Your task to perform on an android device: Search for sushi restaurants on Maps Image 0: 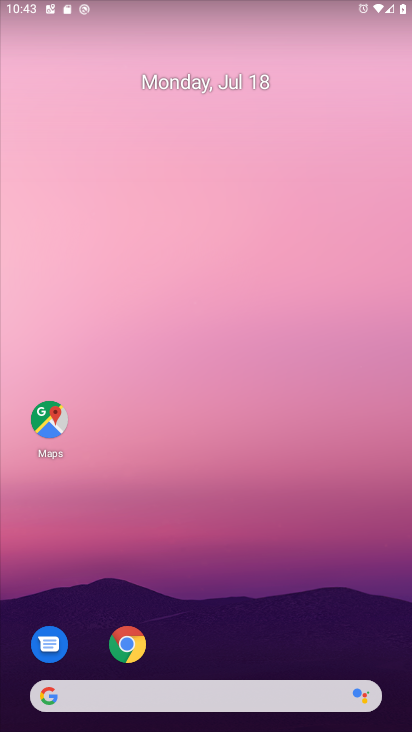
Step 0: click (53, 432)
Your task to perform on an android device: Search for sushi restaurants on Maps Image 1: 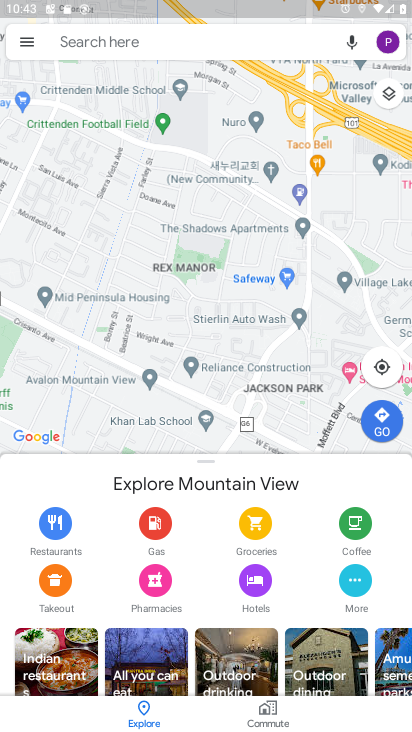
Step 1: click (197, 37)
Your task to perform on an android device: Search for sushi restaurants on Maps Image 2: 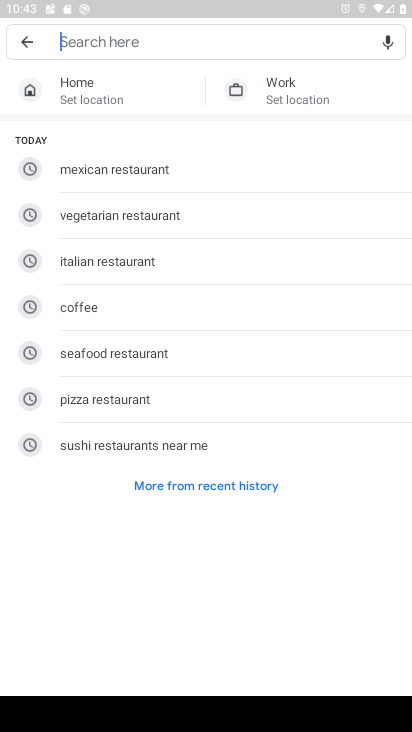
Step 2: type "sushi"
Your task to perform on an android device: Search for sushi restaurants on Maps Image 3: 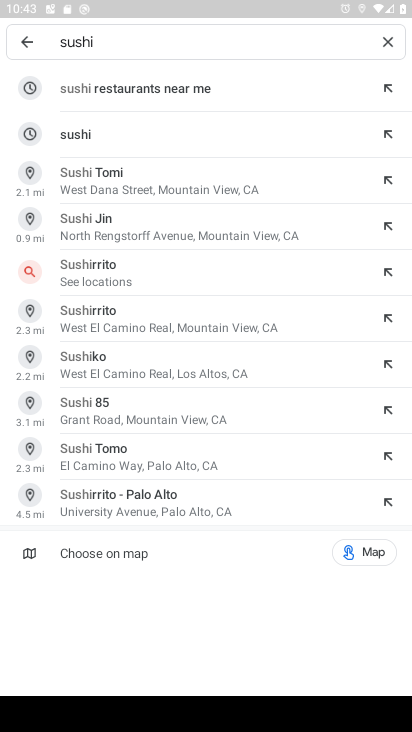
Step 3: click (132, 85)
Your task to perform on an android device: Search for sushi restaurants on Maps Image 4: 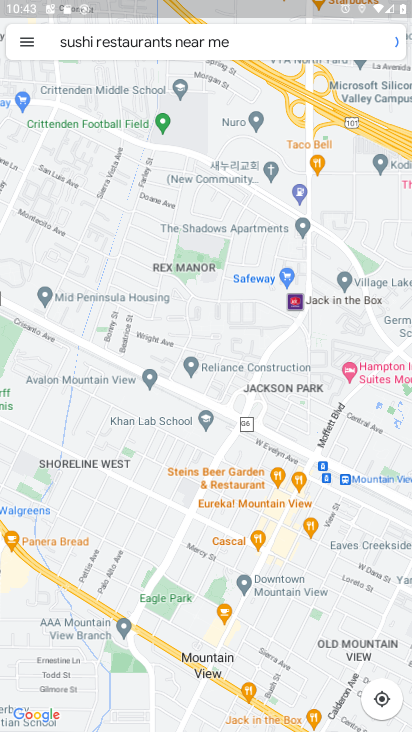
Step 4: task complete